Your task to perform on an android device: Go to Reddit.com Image 0: 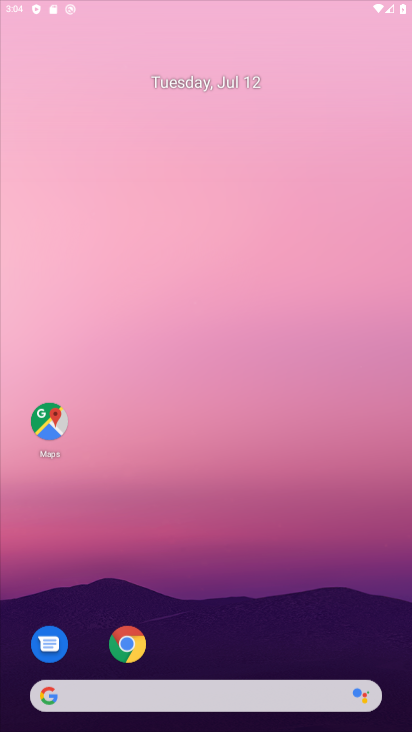
Step 0: click (229, 122)
Your task to perform on an android device: Go to Reddit.com Image 1: 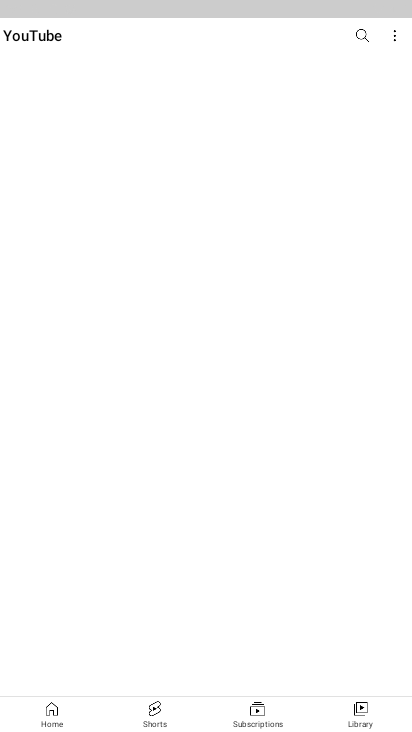
Step 1: press home button
Your task to perform on an android device: Go to Reddit.com Image 2: 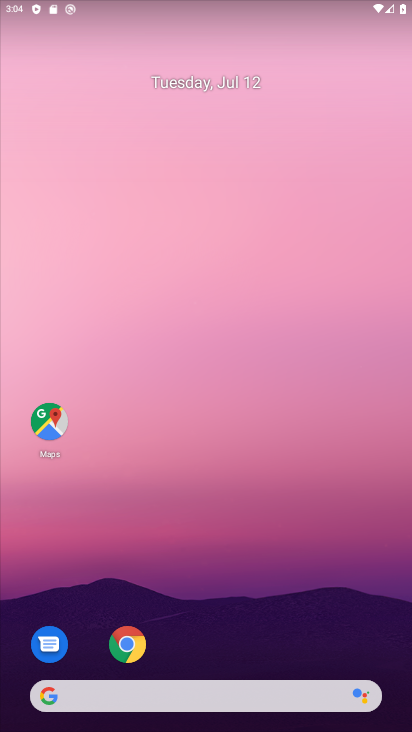
Step 2: drag from (275, 661) to (204, 73)
Your task to perform on an android device: Go to Reddit.com Image 3: 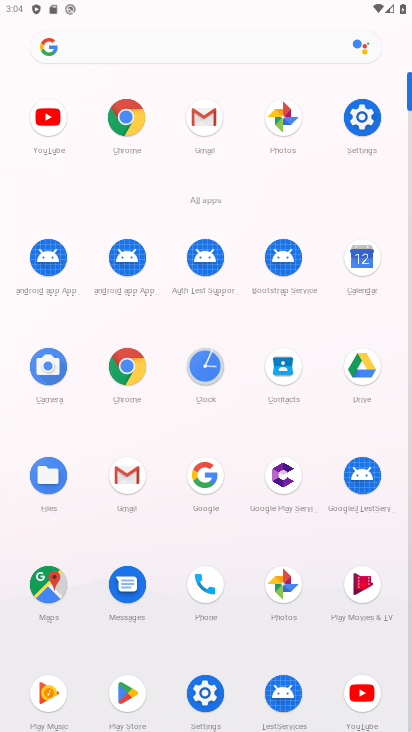
Step 3: click (128, 114)
Your task to perform on an android device: Go to Reddit.com Image 4: 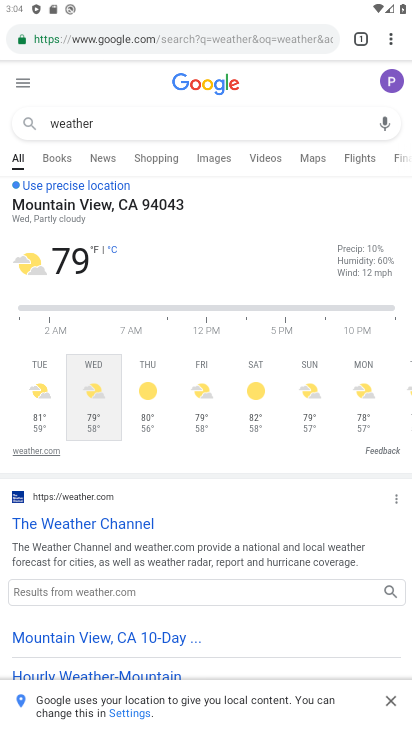
Step 4: click (235, 37)
Your task to perform on an android device: Go to Reddit.com Image 5: 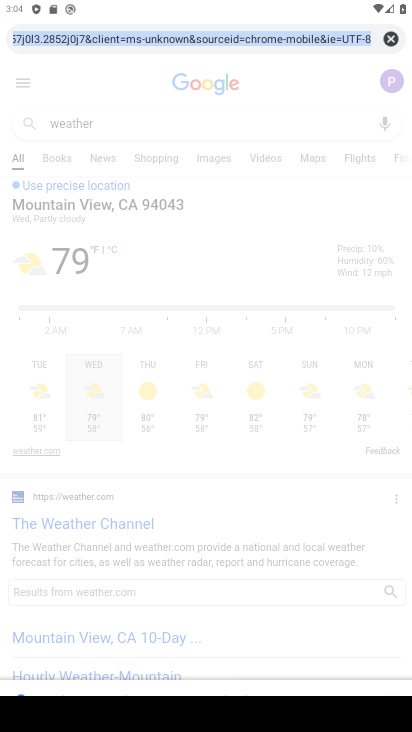
Step 5: type "reddit.com"
Your task to perform on an android device: Go to Reddit.com Image 6: 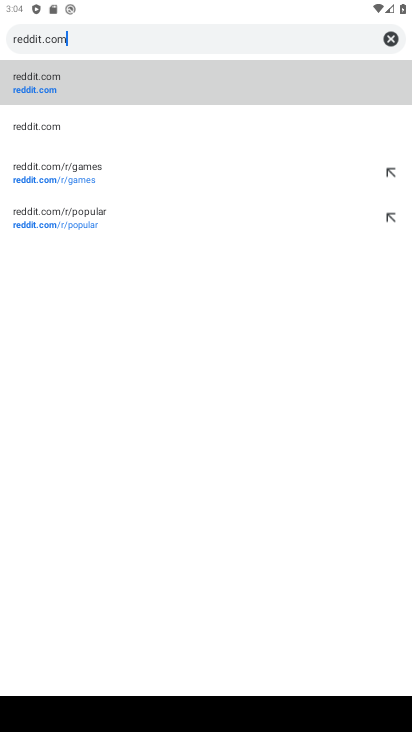
Step 6: click (31, 87)
Your task to perform on an android device: Go to Reddit.com Image 7: 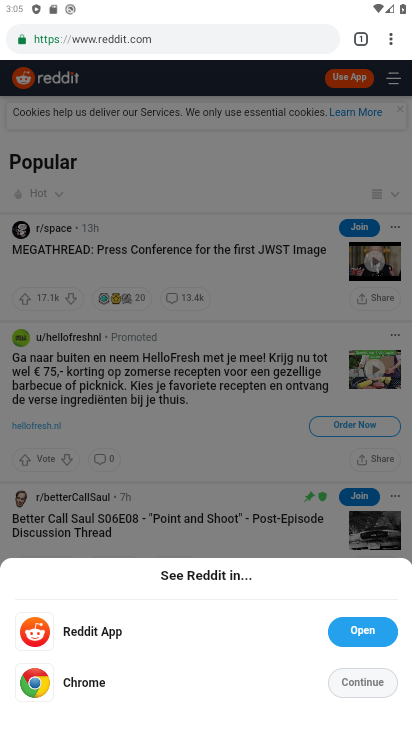
Step 7: task complete